Your task to perform on an android device: What's the weather going to be tomorrow? Image 0: 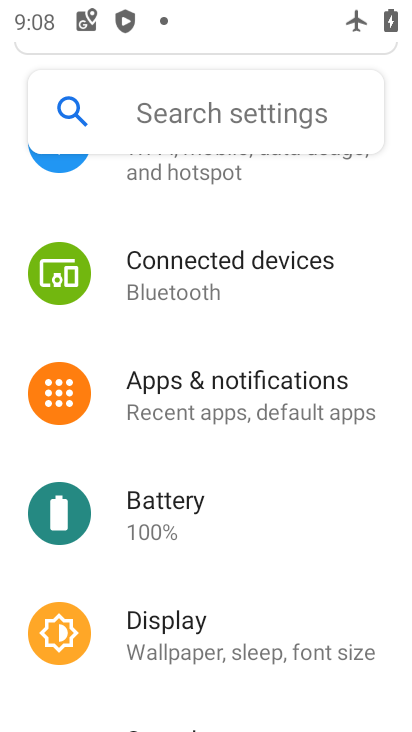
Step 0: press home button
Your task to perform on an android device: What's the weather going to be tomorrow? Image 1: 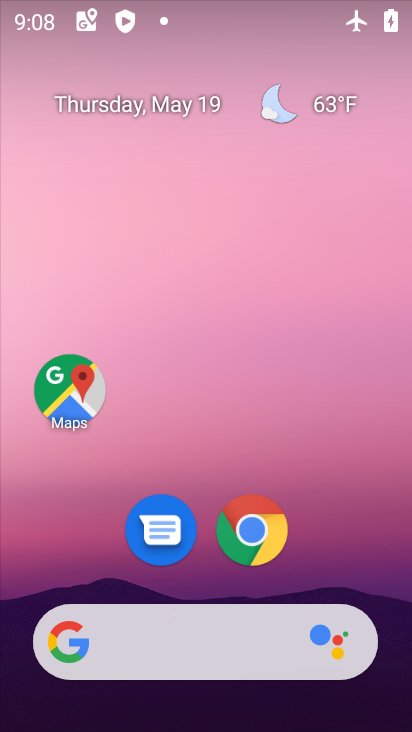
Step 1: drag from (281, 672) to (294, 3)
Your task to perform on an android device: What's the weather going to be tomorrow? Image 2: 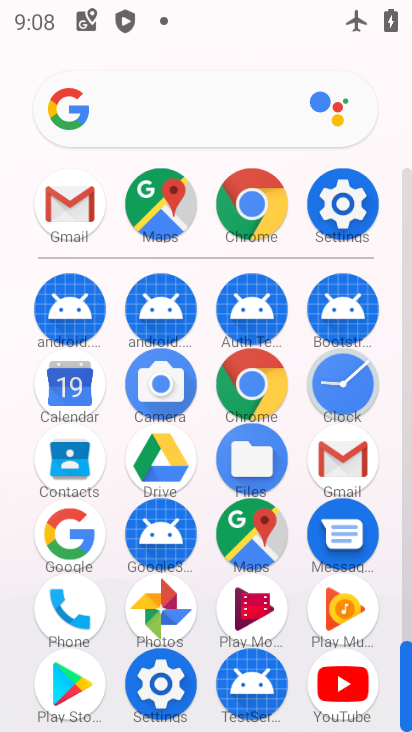
Step 2: click (64, 541)
Your task to perform on an android device: What's the weather going to be tomorrow? Image 3: 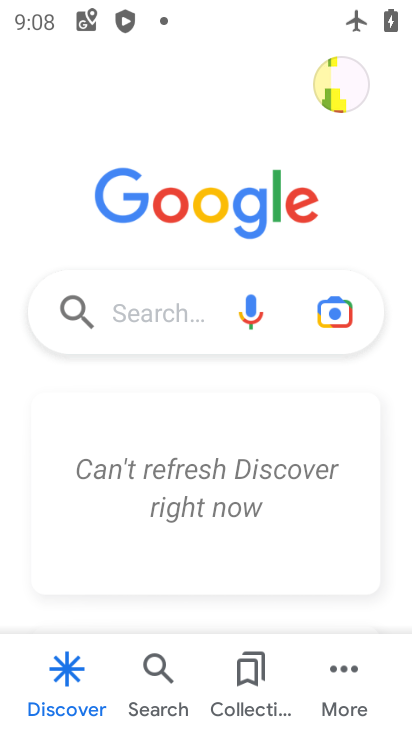
Step 3: click (148, 318)
Your task to perform on an android device: What's the weather going to be tomorrow? Image 4: 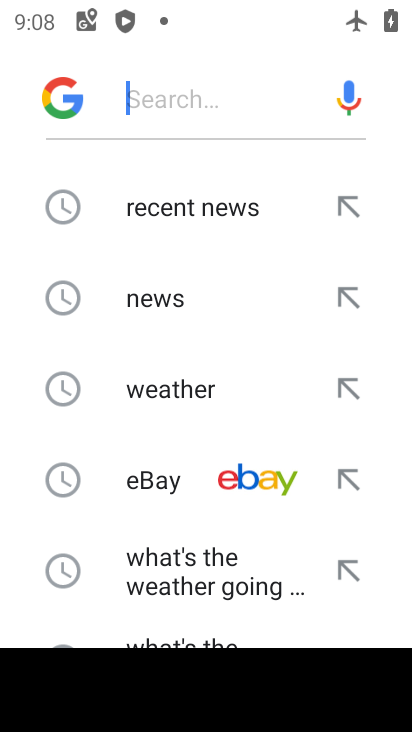
Step 4: click (222, 405)
Your task to perform on an android device: What's the weather going to be tomorrow? Image 5: 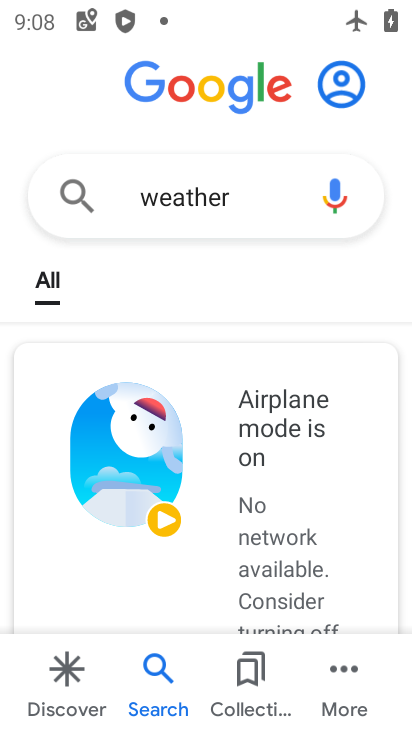
Step 5: task complete